Your task to perform on an android device: choose inbox layout in the gmail app Image 0: 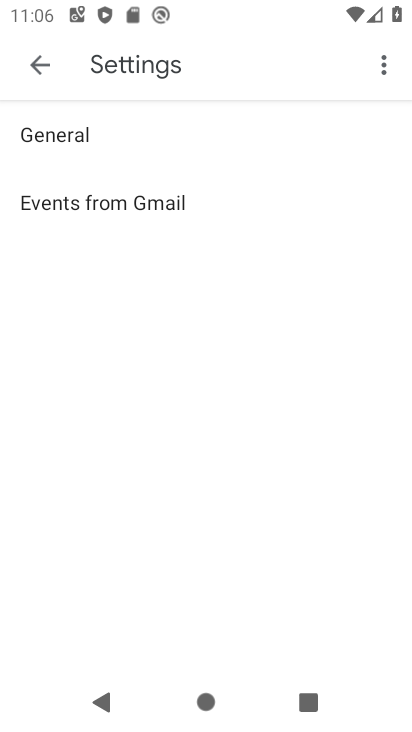
Step 0: press back button
Your task to perform on an android device: choose inbox layout in the gmail app Image 1: 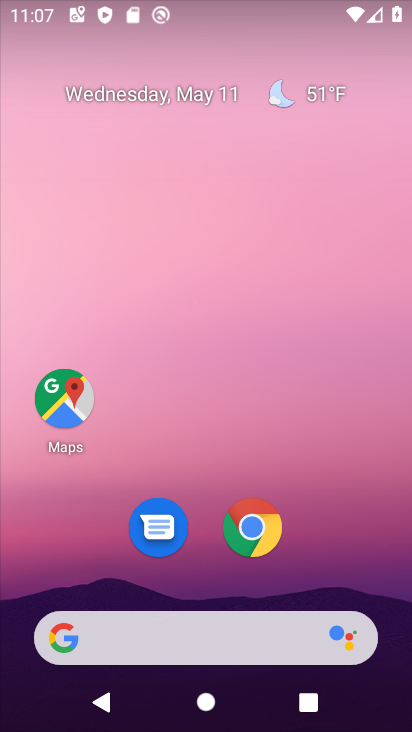
Step 1: drag from (315, 537) to (201, 93)
Your task to perform on an android device: choose inbox layout in the gmail app Image 2: 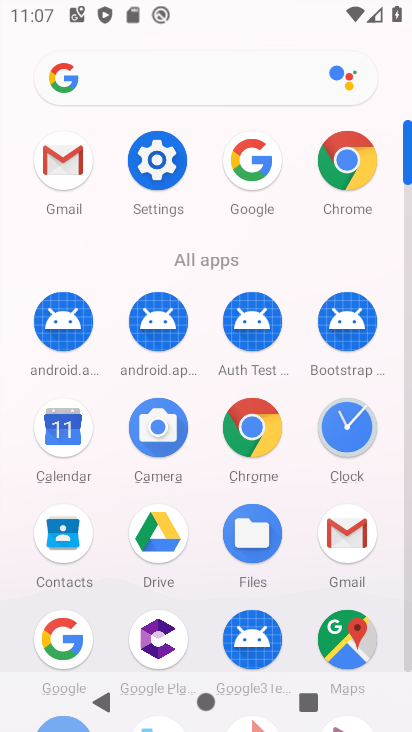
Step 2: click (56, 157)
Your task to perform on an android device: choose inbox layout in the gmail app Image 3: 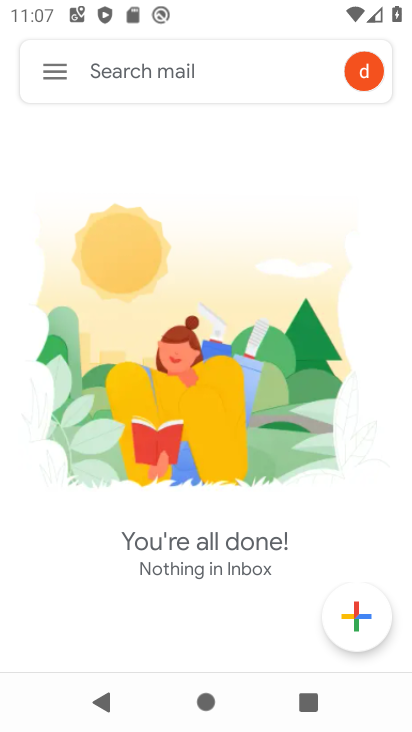
Step 3: click (57, 66)
Your task to perform on an android device: choose inbox layout in the gmail app Image 4: 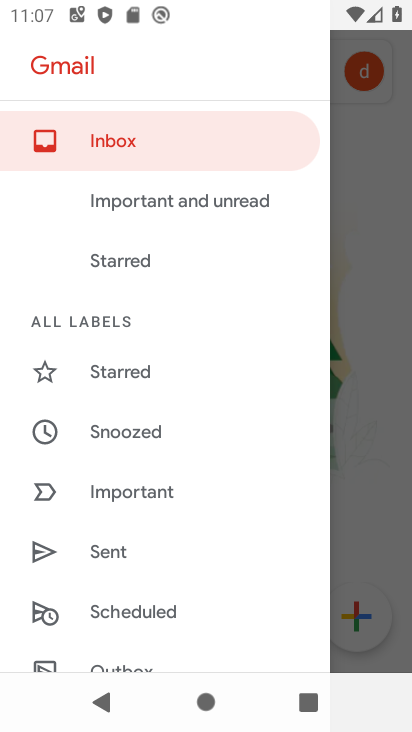
Step 4: drag from (165, 395) to (194, 309)
Your task to perform on an android device: choose inbox layout in the gmail app Image 5: 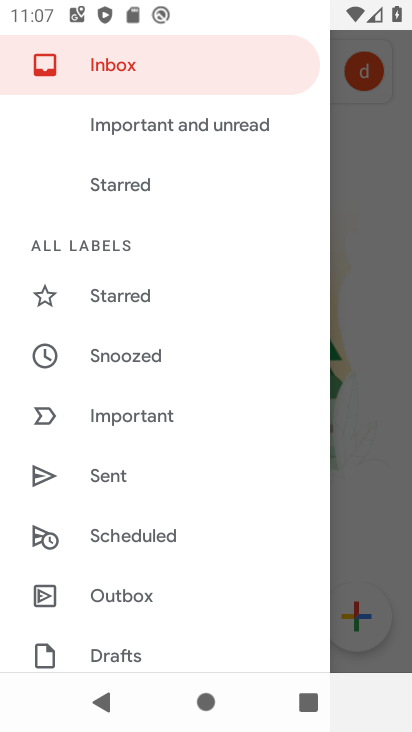
Step 5: drag from (163, 445) to (197, 332)
Your task to perform on an android device: choose inbox layout in the gmail app Image 6: 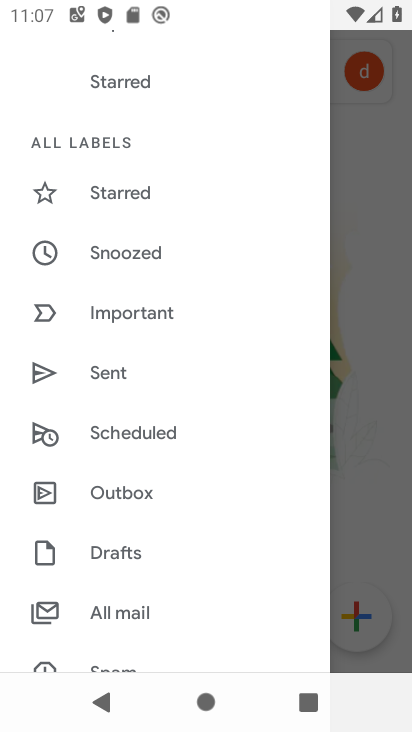
Step 6: drag from (144, 453) to (219, 328)
Your task to perform on an android device: choose inbox layout in the gmail app Image 7: 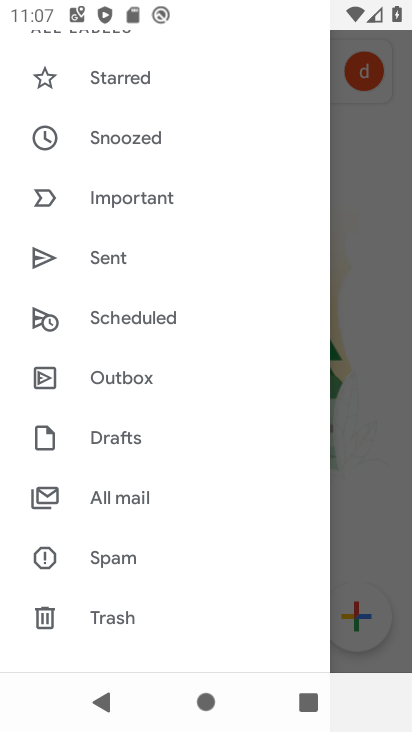
Step 7: drag from (132, 459) to (207, 354)
Your task to perform on an android device: choose inbox layout in the gmail app Image 8: 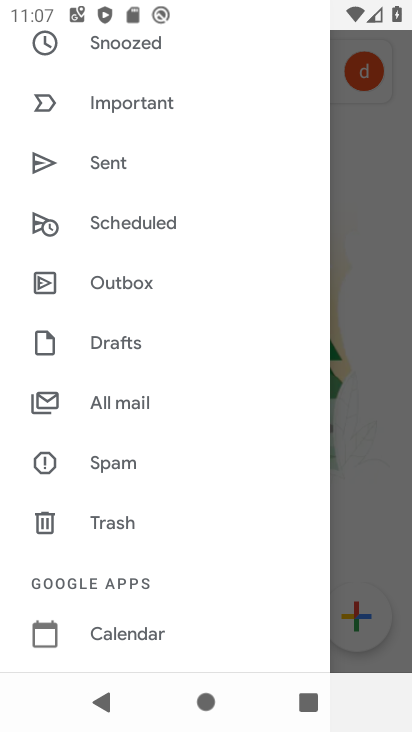
Step 8: drag from (124, 482) to (216, 357)
Your task to perform on an android device: choose inbox layout in the gmail app Image 9: 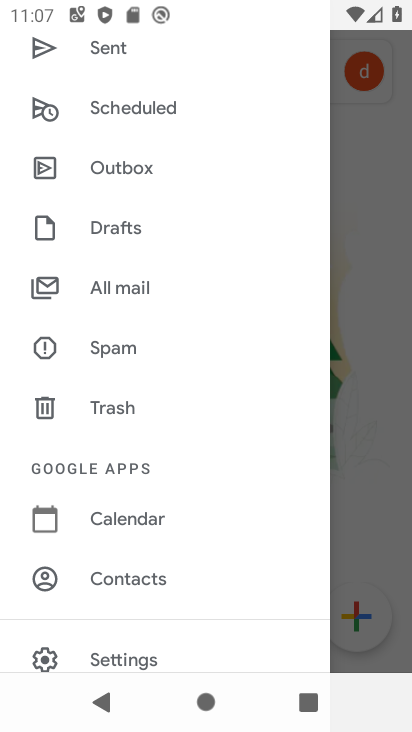
Step 9: drag from (118, 540) to (225, 373)
Your task to perform on an android device: choose inbox layout in the gmail app Image 10: 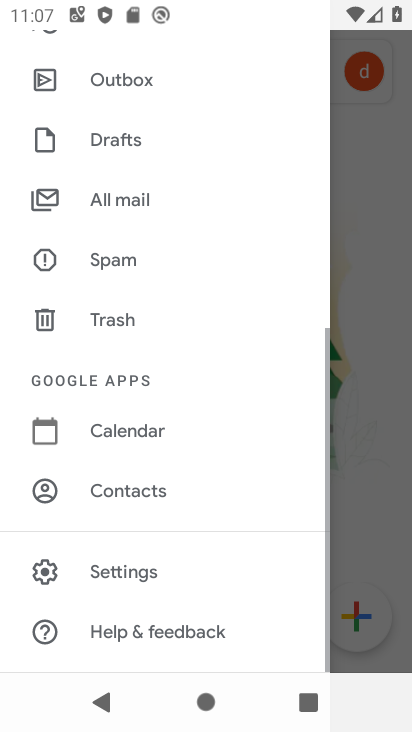
Step 10: click (126, 572)
Your task to perform on an android device: choose inbox layout in the gmail app Image 11: 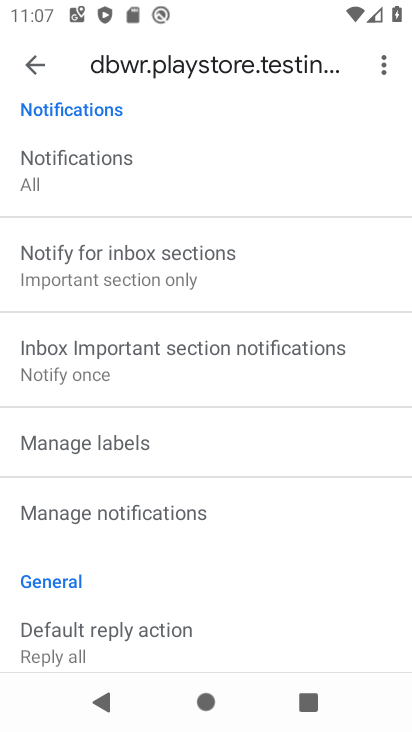
Step 11: drag from (106, 494) to (217, 583)
Your task to perform on an android device: choose inbox layout in the gmail app Image 12: 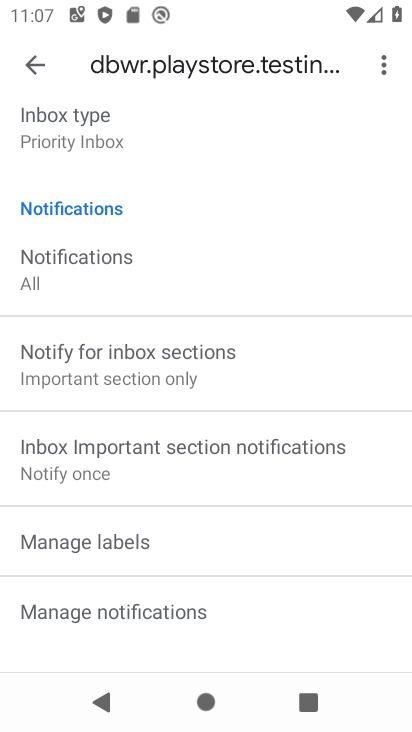
Step 12: drag from (172, 220) to (204, 388)
Your task to perform on an android device: choose inbox layout in the gmail app Image 13: 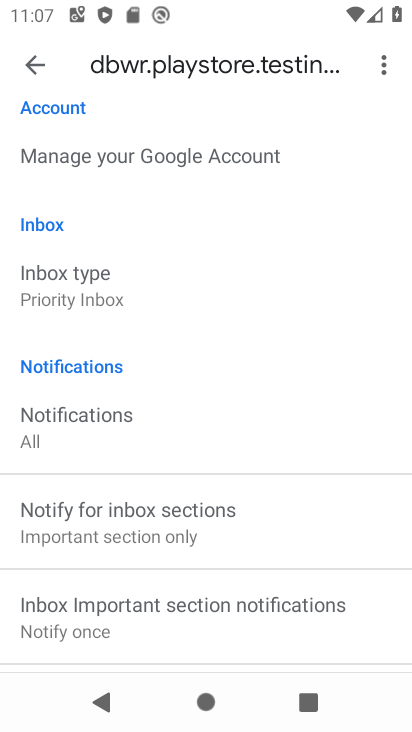
Step 13: click (110, 301)
Your task to perform on an android device: choose inbox layout in the gmail app Image 14: 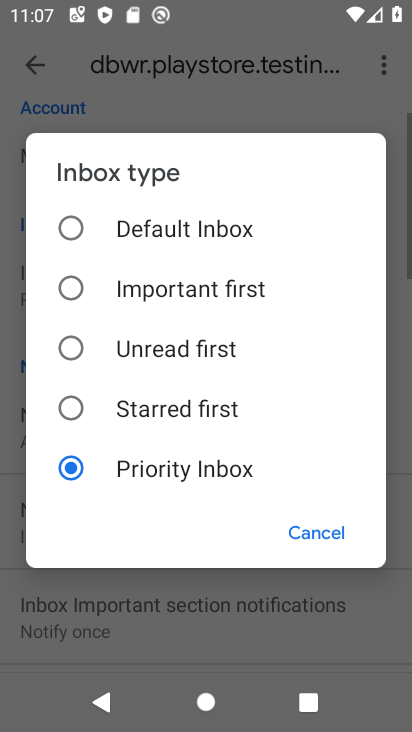
Step 14: click (110, 301)
Your task to perform on an android device: choose inbox layout in the gmail app Image 15: 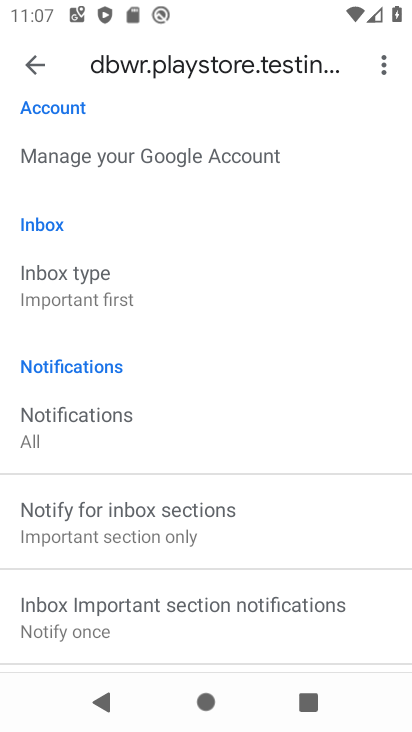
Step 15: task complete